Your task to perform on an android device: Open the web browser Image 0: 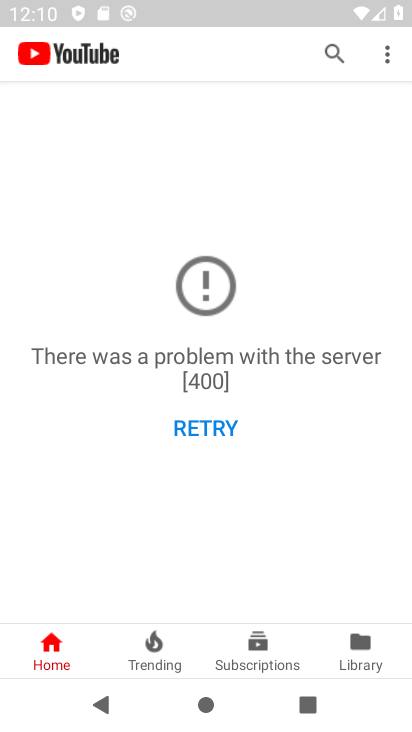
Step 0: press home button
Your task to perform on an android device: Open the web browser Image 1: 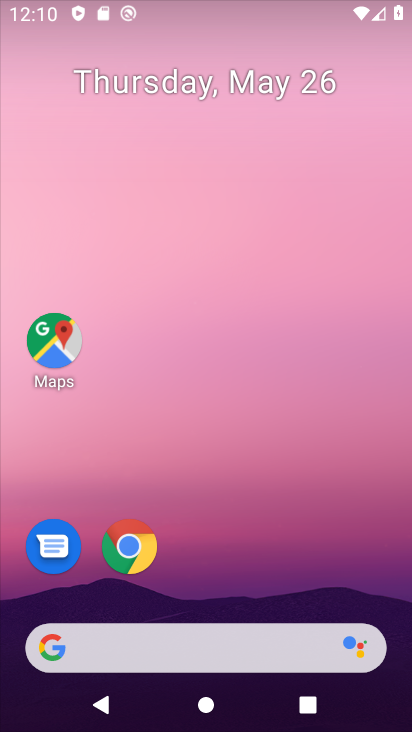
Step 1: drag from (394, 627) to (330, 158)
Your task to perform on an android device: Open the web browser Image 2: 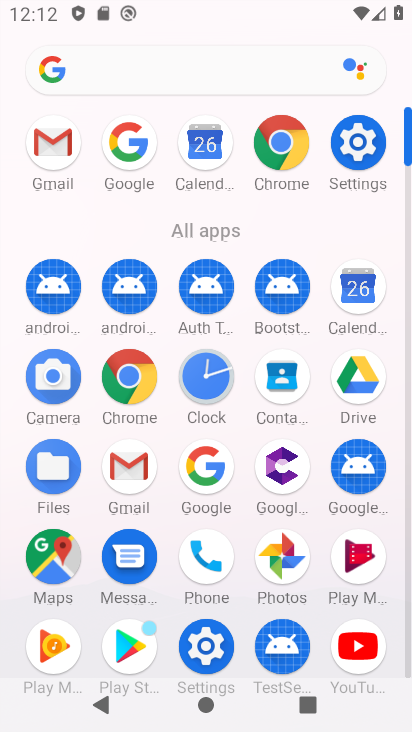
Step 2: click (137, 378)
Your task to perform on an android device: Open the web browser Image 3: 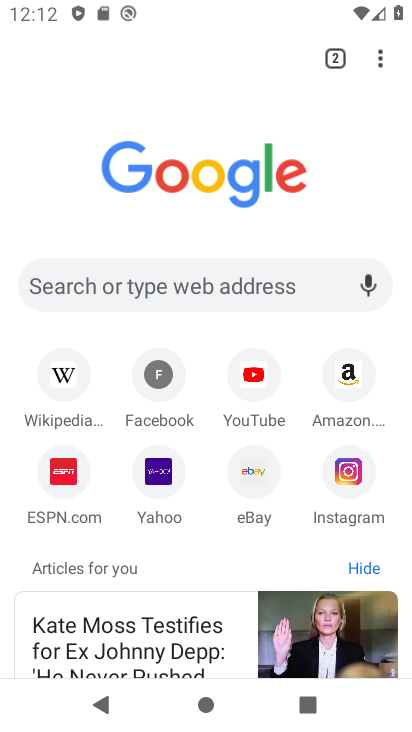
Step 3: task complete